Your task to perform on an android device: Open Google Chrome and click the shortcut for Amazon.com Image 0: 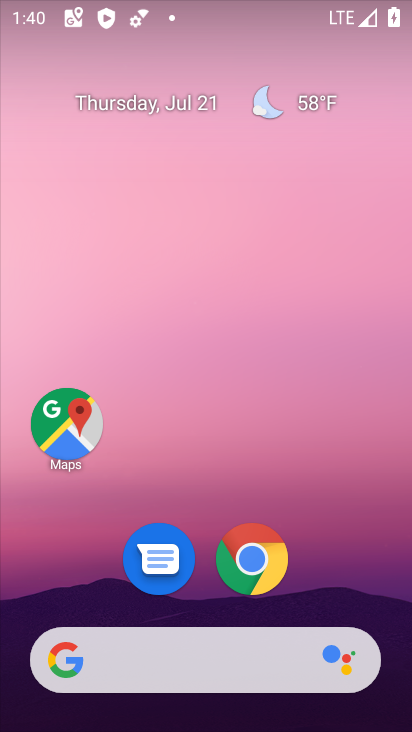
Step 0: drag from (380, 571) to (384, 282)
Your task to perform on an android device: Open Google Chrome and click the shortcut for Amazon.com Image 1: 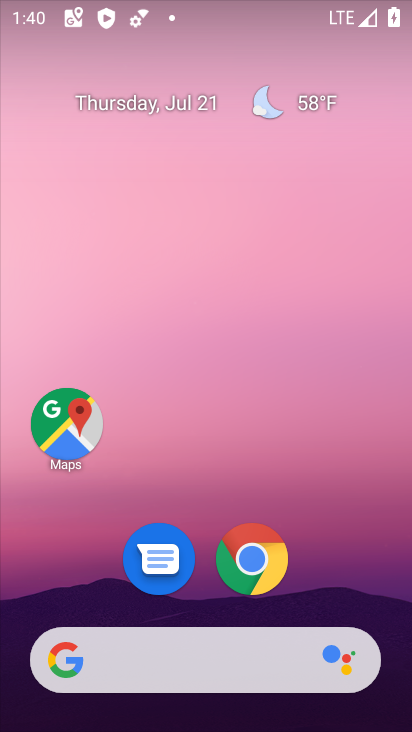
Step 1: drag from (358, 566) to (370, 205)
Your task to perform on an android device: Open Google Chrome and click the shortcut for Amazon.com Image 2: 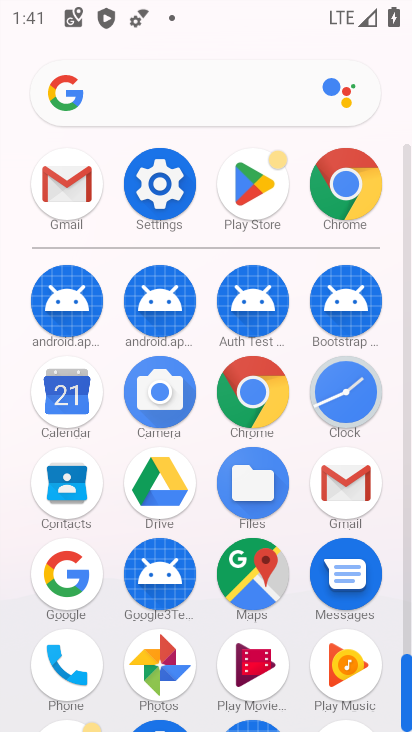
Step 2: click (269, 391)
Your task to perform on an android device: Open Google Chrome and click the shortcut for Amazon.com Image 3: 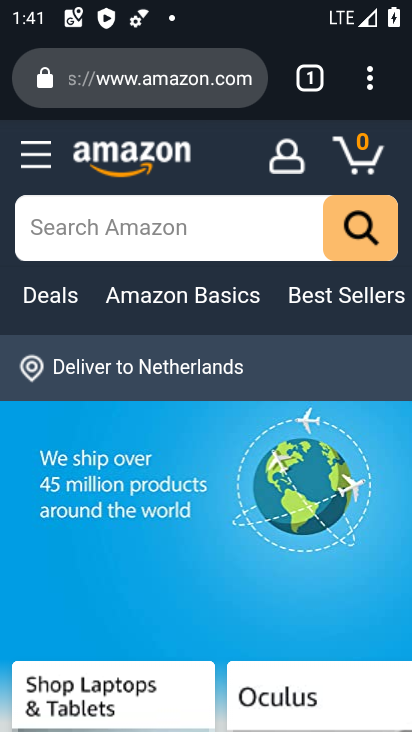
Step 3: task complete